Your task to perform on an android device: Open calendar and show me the first week of next month Image 0: 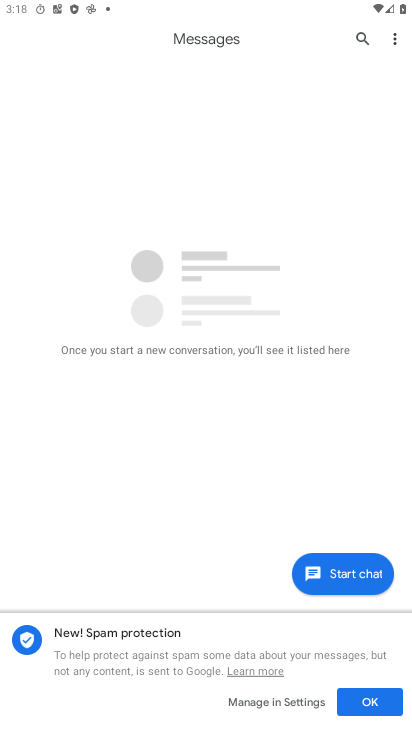
Step 0: press home button
Your task to perform on an android device: Open calendar and show me the first week of next month Image 1: 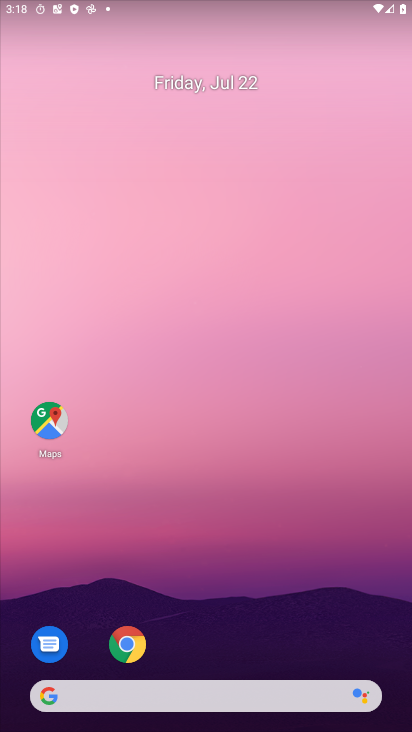
Step 1: drag from (263, 372) to (281, 203)
Your task to perform on an android device: Open calendar and show me the first week of next month Image 2: 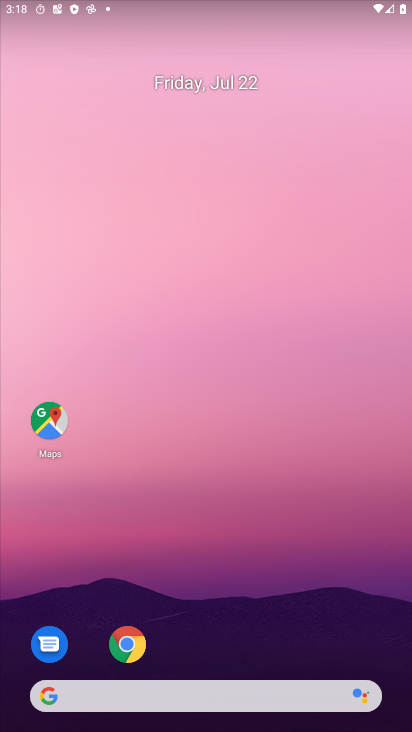
Step 2: drag from (209, 686) to (207, 164)
Your task to perform on an android device: Open calendar and show me the first week of next month Image 3: 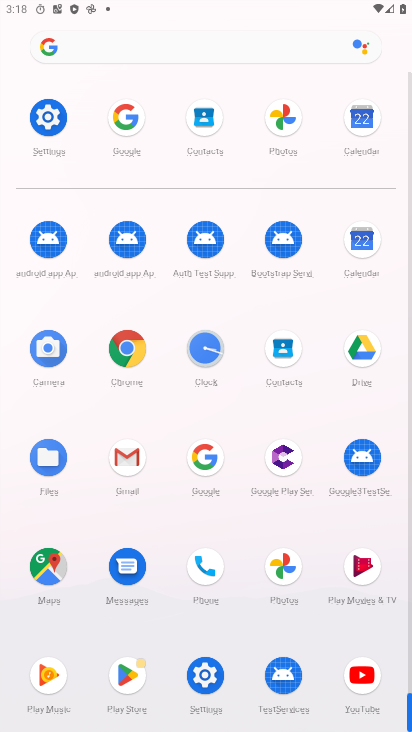
Step 3: click (362, 264)
Your task to perform on an android device: Open calendar and show me the first week of next month Image 4: 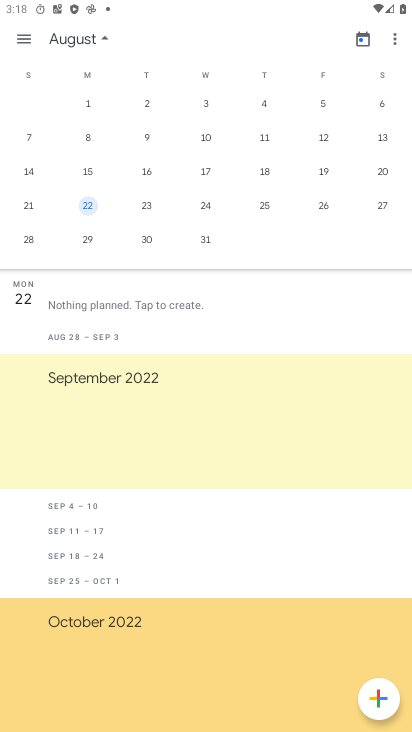
Step 4: click (78, 99)
Your task to perform on an android device: Open calendar and show me the first week of next month Image 5: 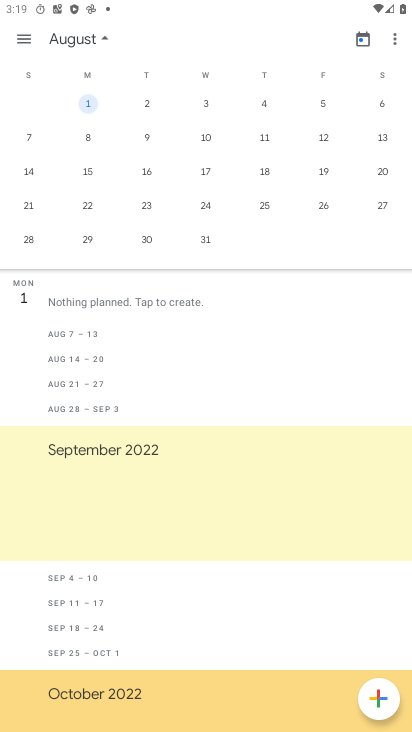
Step 5: task complete